Your task to perform on an android device: toggle improve location accuracy Image 0: 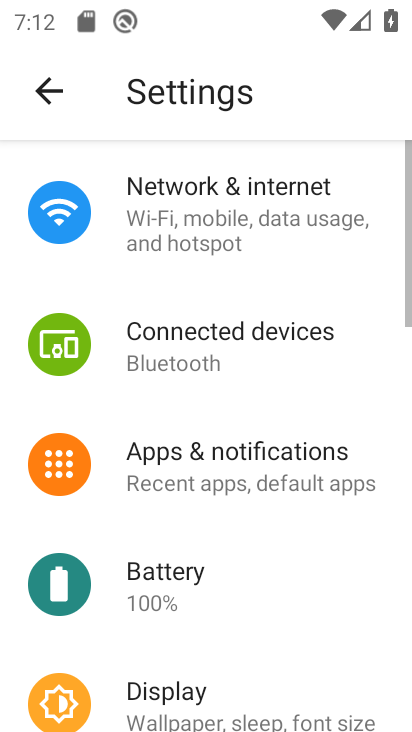
Step 0: press home button
Your task to perform on an android device: toggle improve location accuracy Image 1: 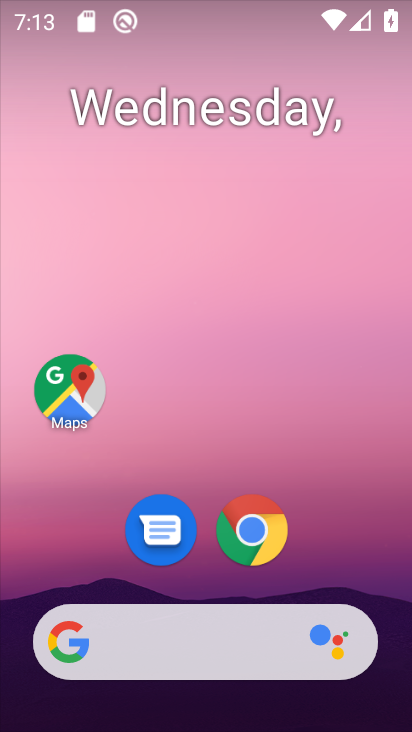
Step 1: drag from (381, 659) to (373, 39)
Your task to perform on an android device: toggle improve location accuracy Image 2: 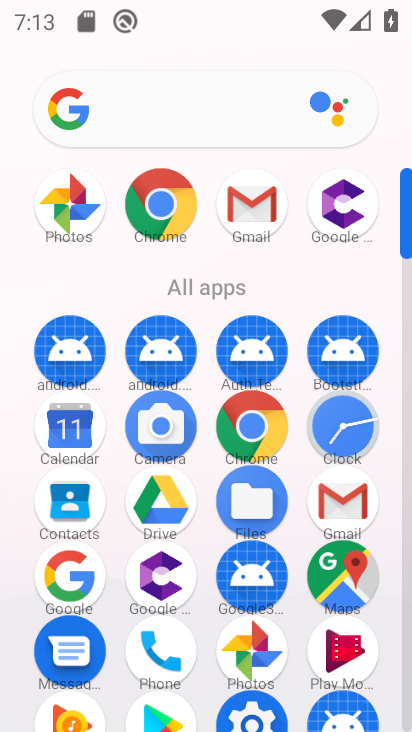
Step 2: click (248, 704)
Your task to perform on an android device: toggle improve location accuracy Image 3: 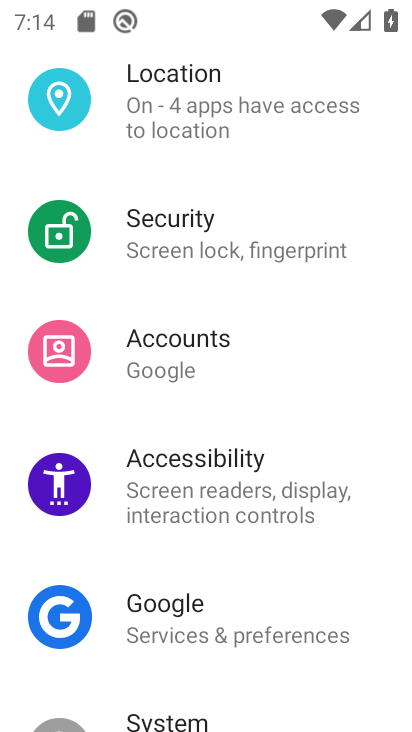
Step 3: click (212, 103)
Your task to perform on an android device: toggle improve location accuracy Image 4: 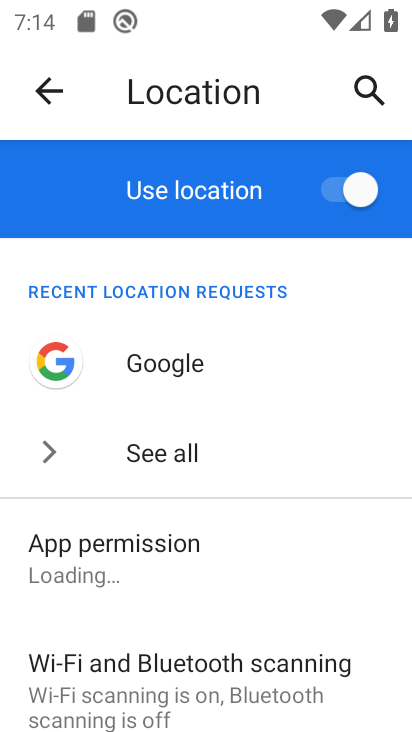
Step 4: drag from (165, 604) to (223, 216)
Your task to perform on an android device: toggle improve location accuracy Image 5: 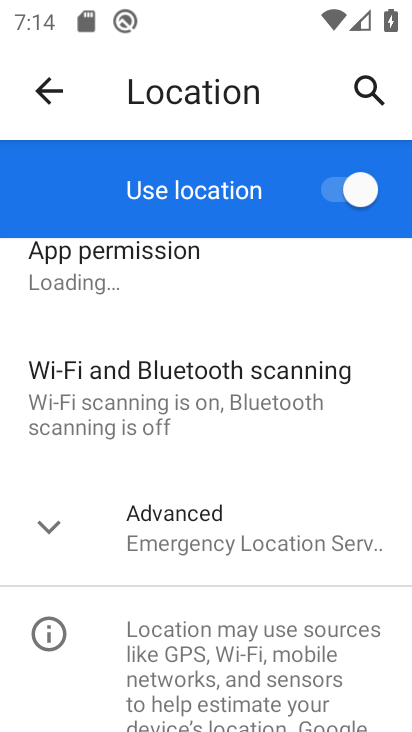
Step 5: click (114, 546)
Your task to perform on an android device: toggle improve location accuracy Image 6: 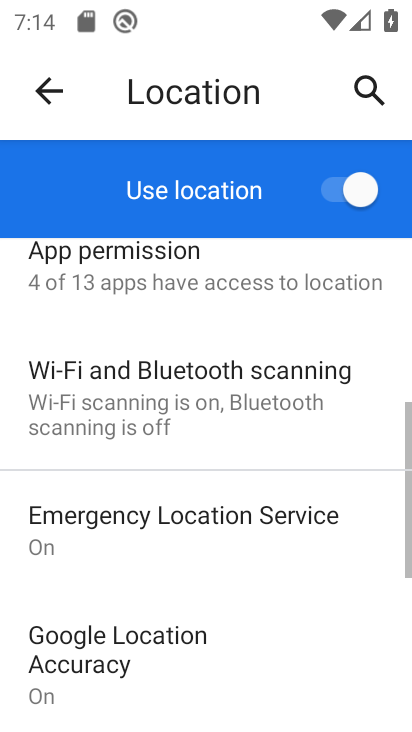
Step 6: click (157, 659)
Your task to perform on an android device: toggle improve location accuracy Image 7: 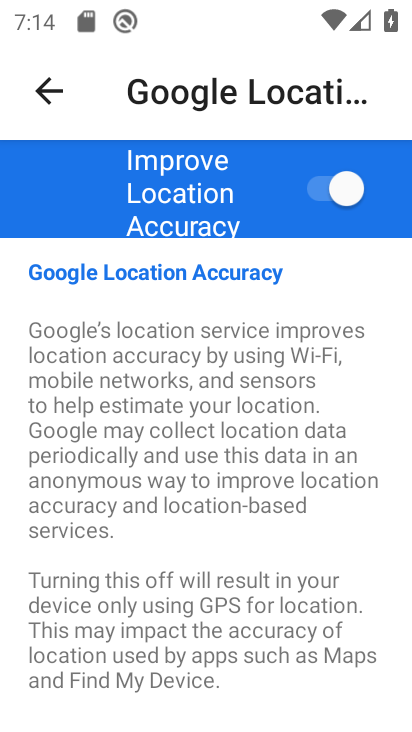
Step 7: click (363, 103)
Your task to perform on an android device: toggle improve location accuracy Image 8: 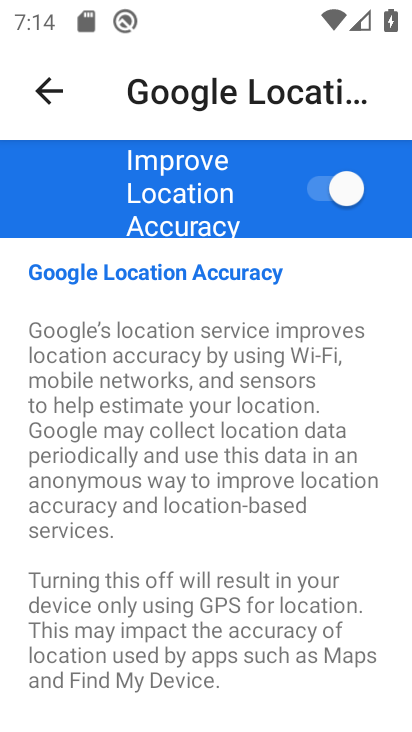
Step 8: click (336, 177)
Your task to perform on an android device: toggle improve location accuracy Image 9: 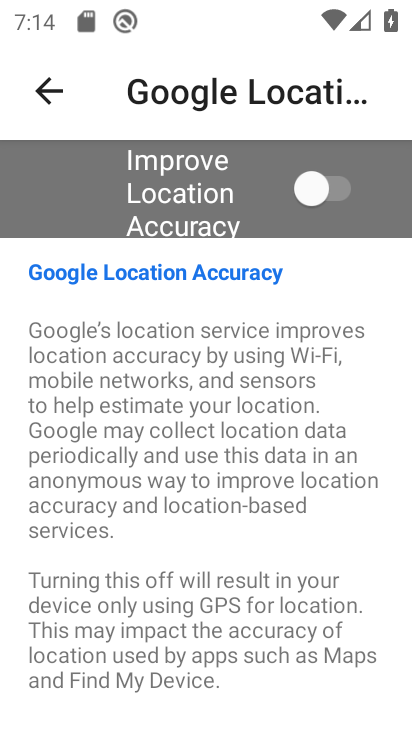
Step 9: task complete